Your task to perform on an android device: open app "Facebook Lite" (install if not already installed), go to login, and select forgot password Image 0: 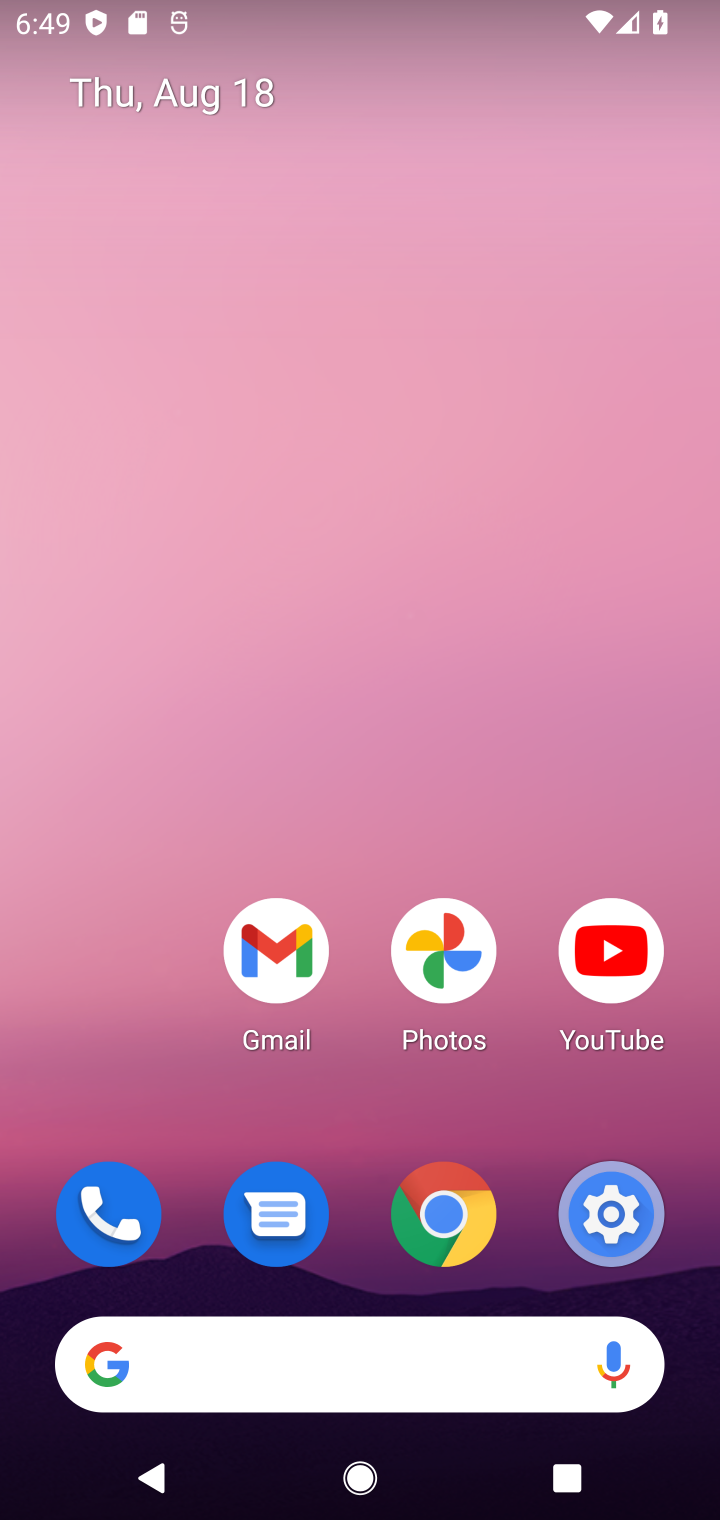
Step 0: drag from (361, 1097) to (398, 36)
Your task to perform on an android device: open app "Facebook Lite" (install if not already installed), go to login, and select forgot password Image 1: 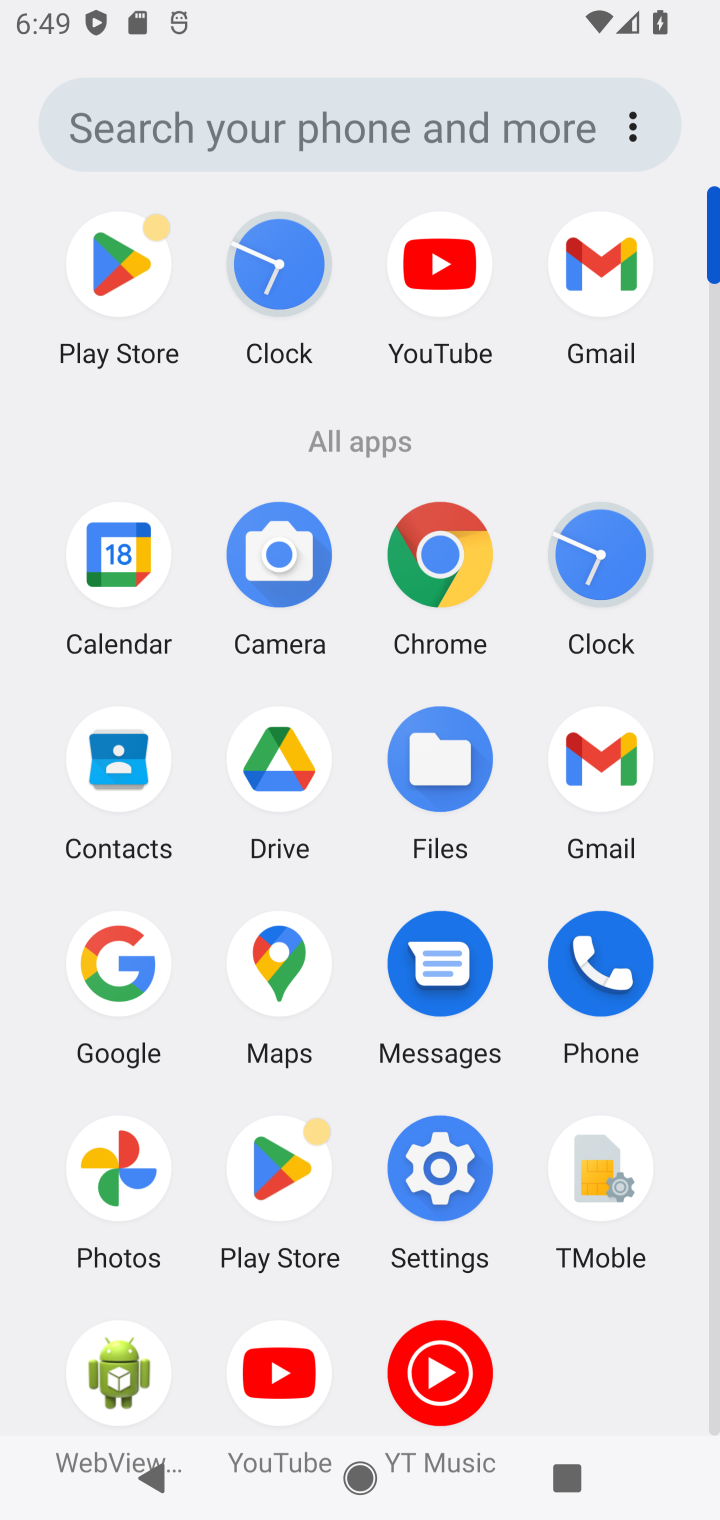
Step 1: click (280, 1177)
Your task to perform on an android device: open app "Facebook Lite" (install if not already installed), go to login, and select forgot password Image 2: 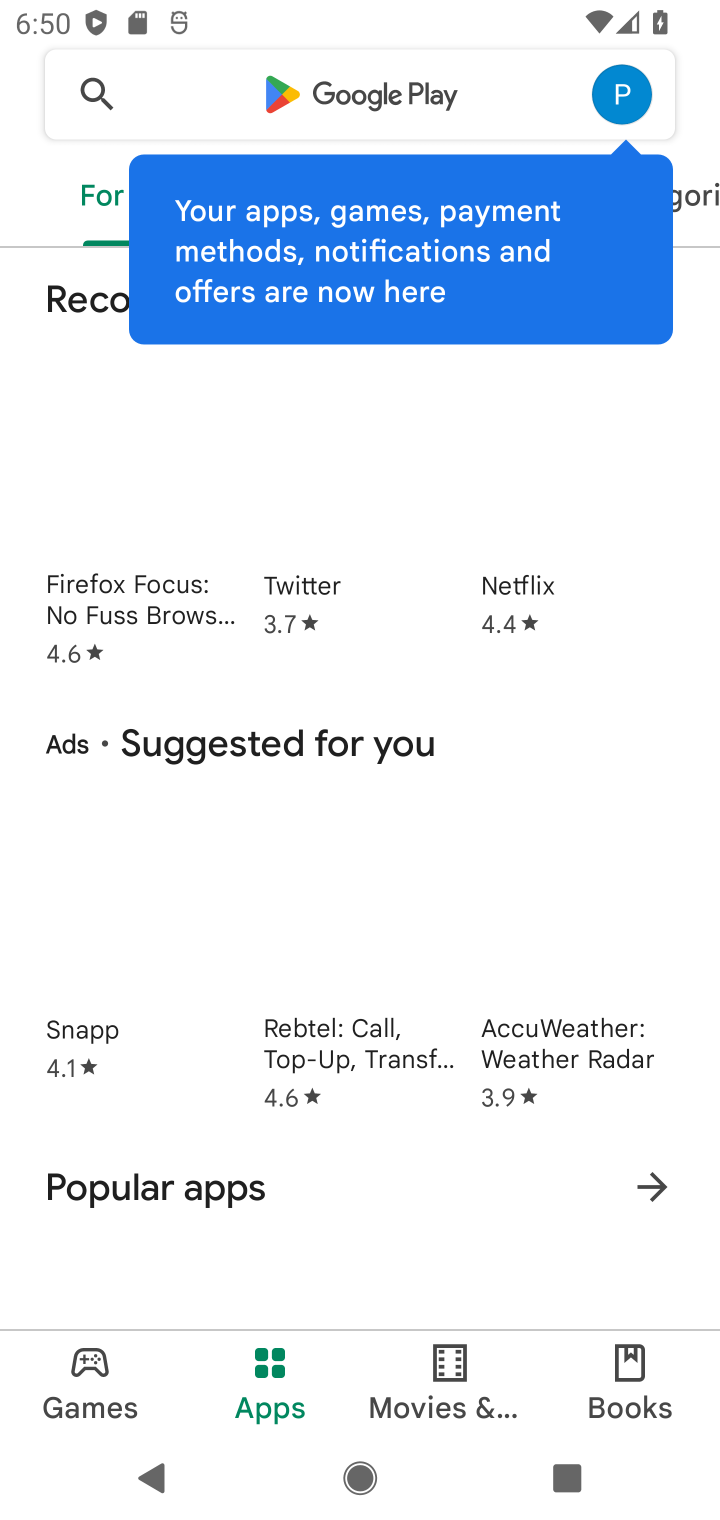
Step 2: click (385, 84)
Your task to perform on an android device: open app "Facebook Lite" (install if not already installed), go to login, and select forgot password Image 3: 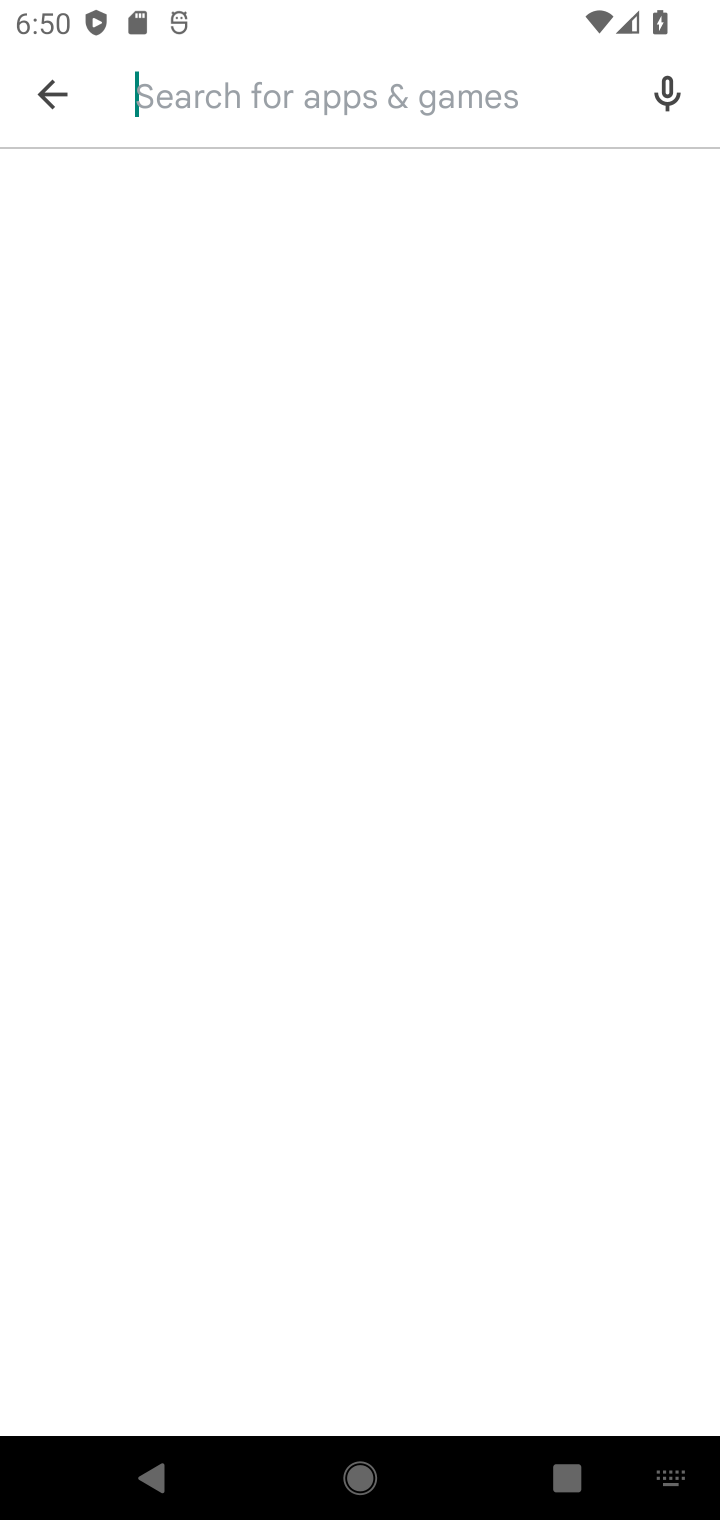
Step 3: type "facebook lite"
Your task to perform on an android device: open app "Facebook Lite" (install if not already installed), go to login, and select forgot password Image 4: 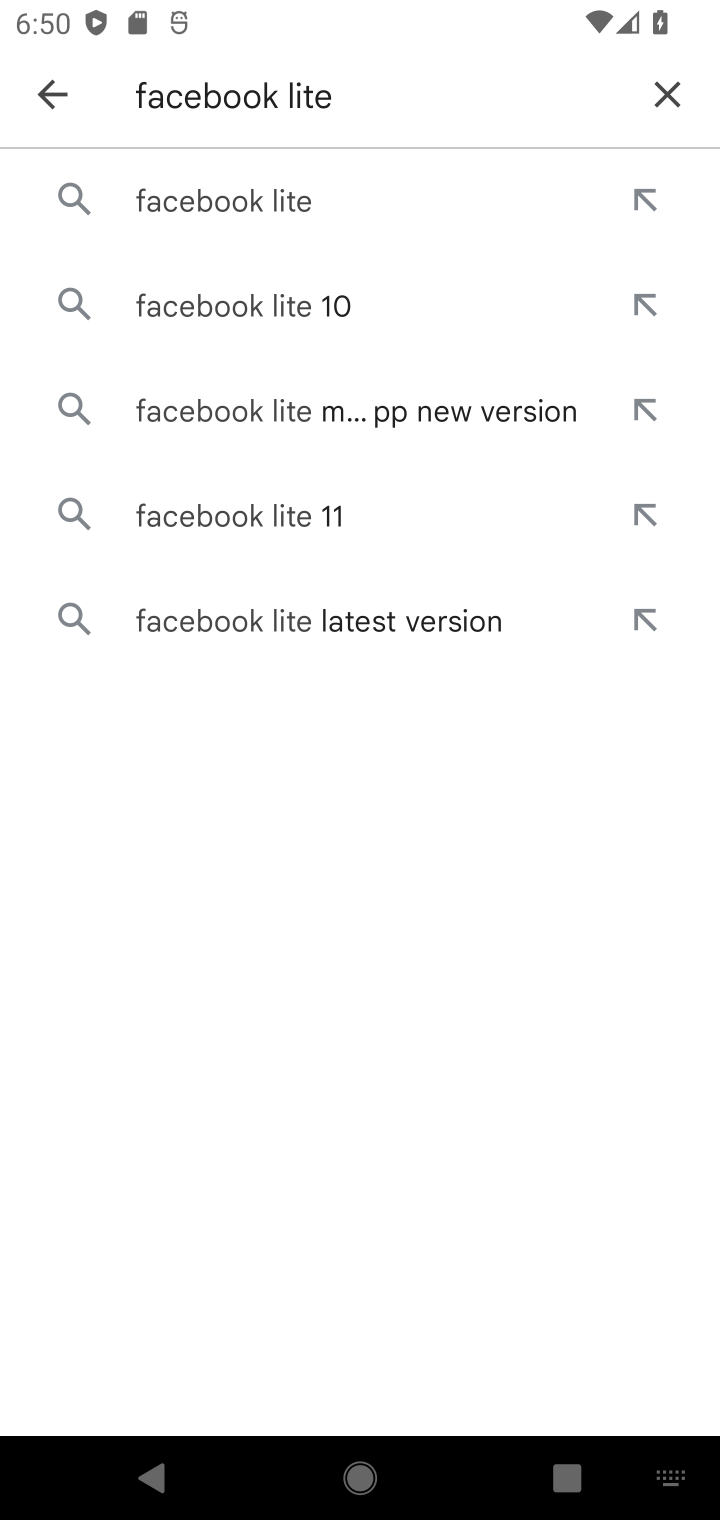
Step 4: click (312, 208)
Your task to perform on an android device: open app "Facebook Lite" (install if not already installed), go to login, and select forgot password Image 5: 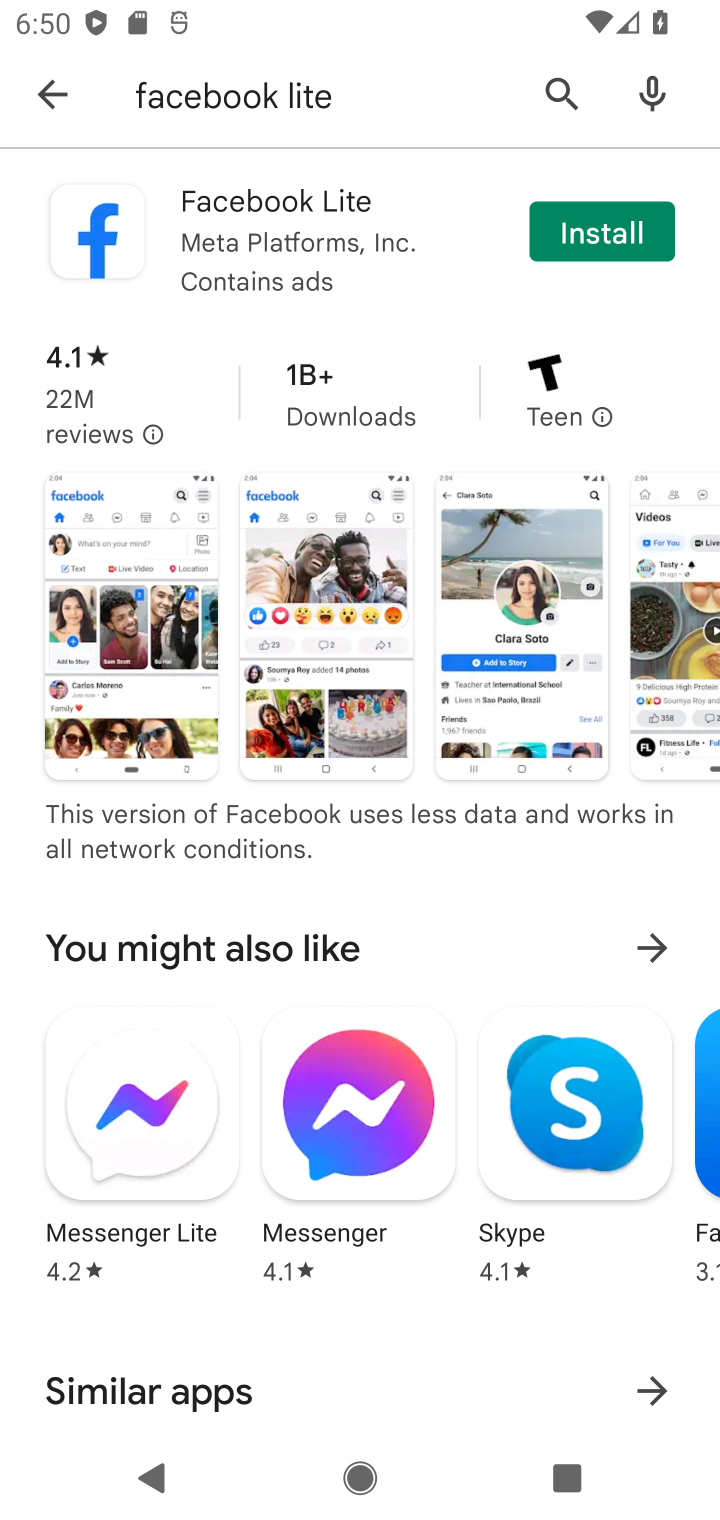
Step 5: click (578, 223)
Your task to perform on an android device: open app "Facebook Lite" (install if not already installed), go to login, and select forgot password Image 6: 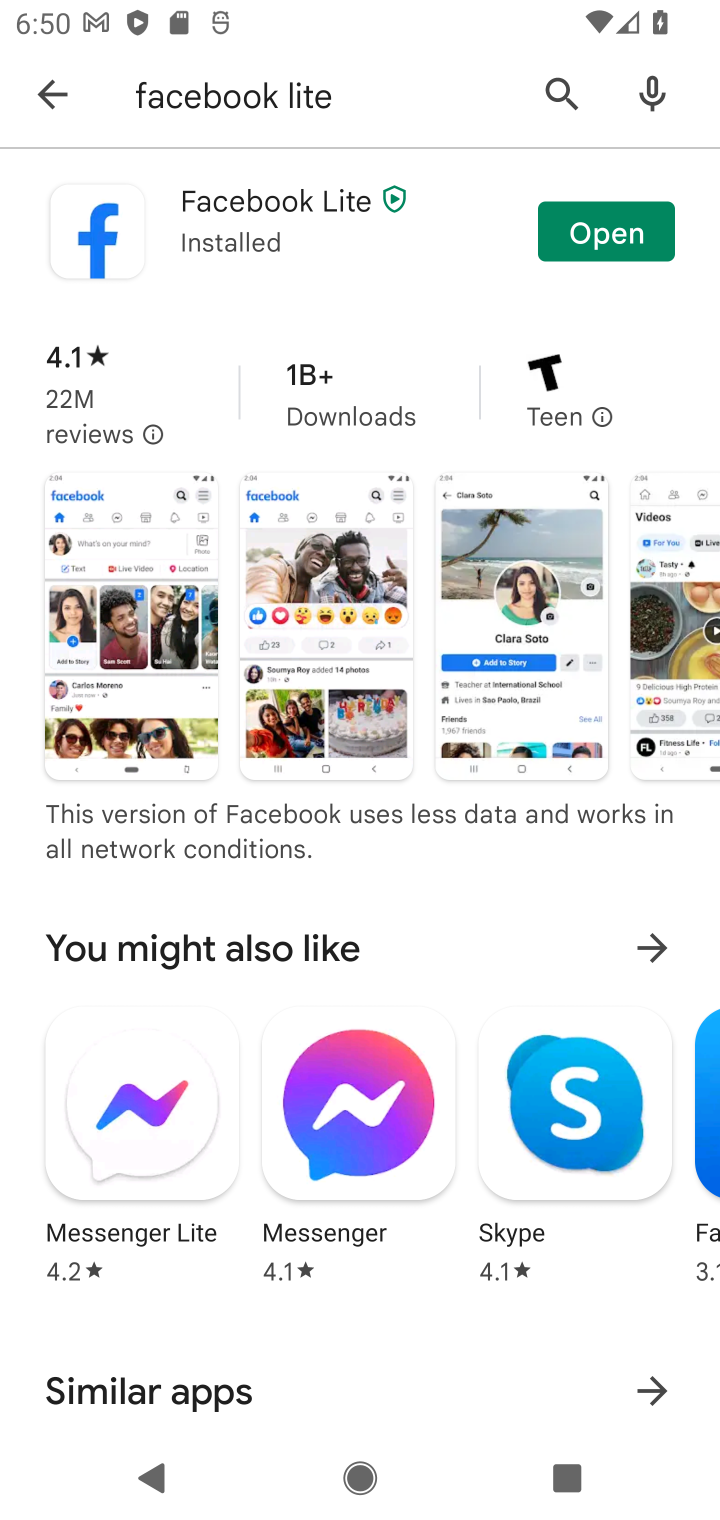
Step 6: click (614, 232)
Your task to perform on an android device: open app "Facebook Lite" (install if not already installed), go to login, and select forgot password Image 7: 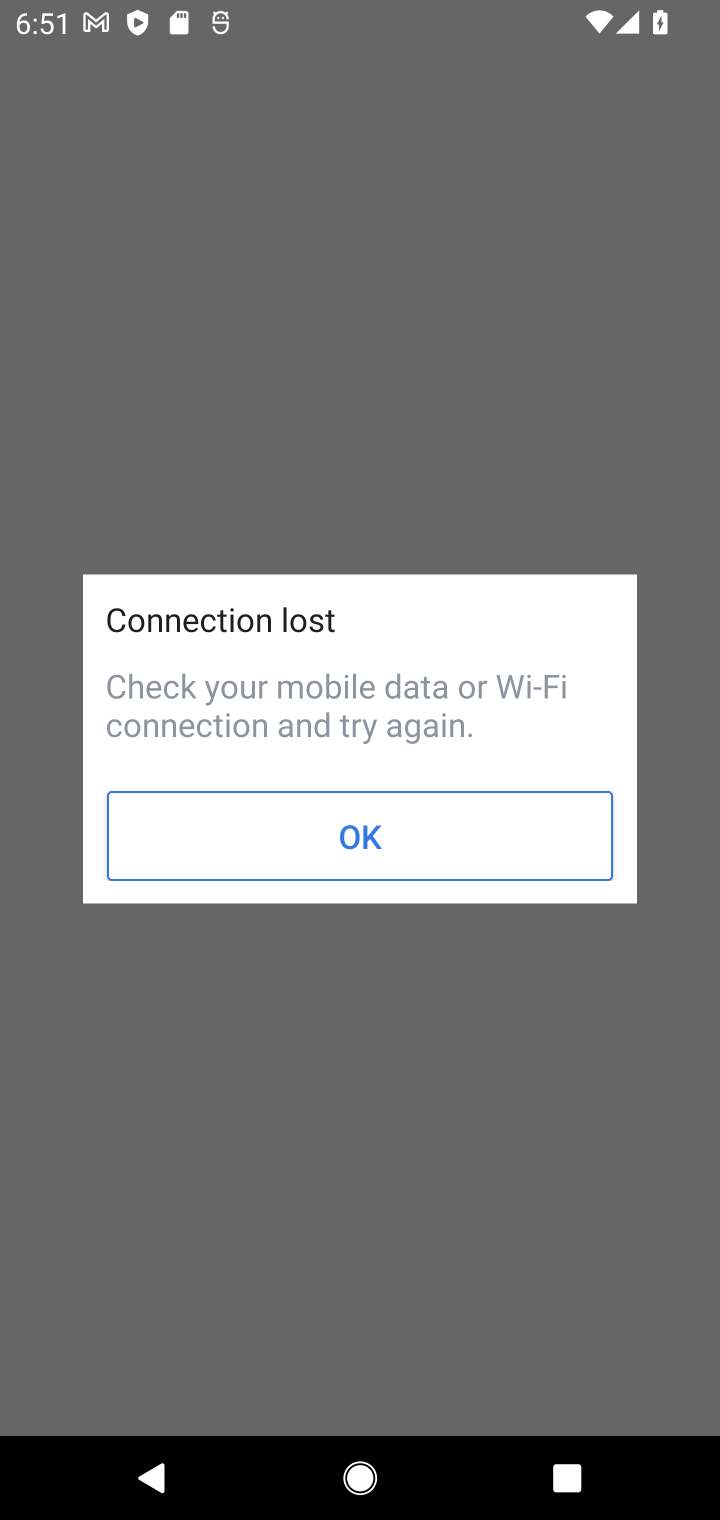
Step 7: click (236, 808)
Your task to perform on an android device: open app "Facebook Lite" (install if not already installed), go to login, and select forgot password Image 8: 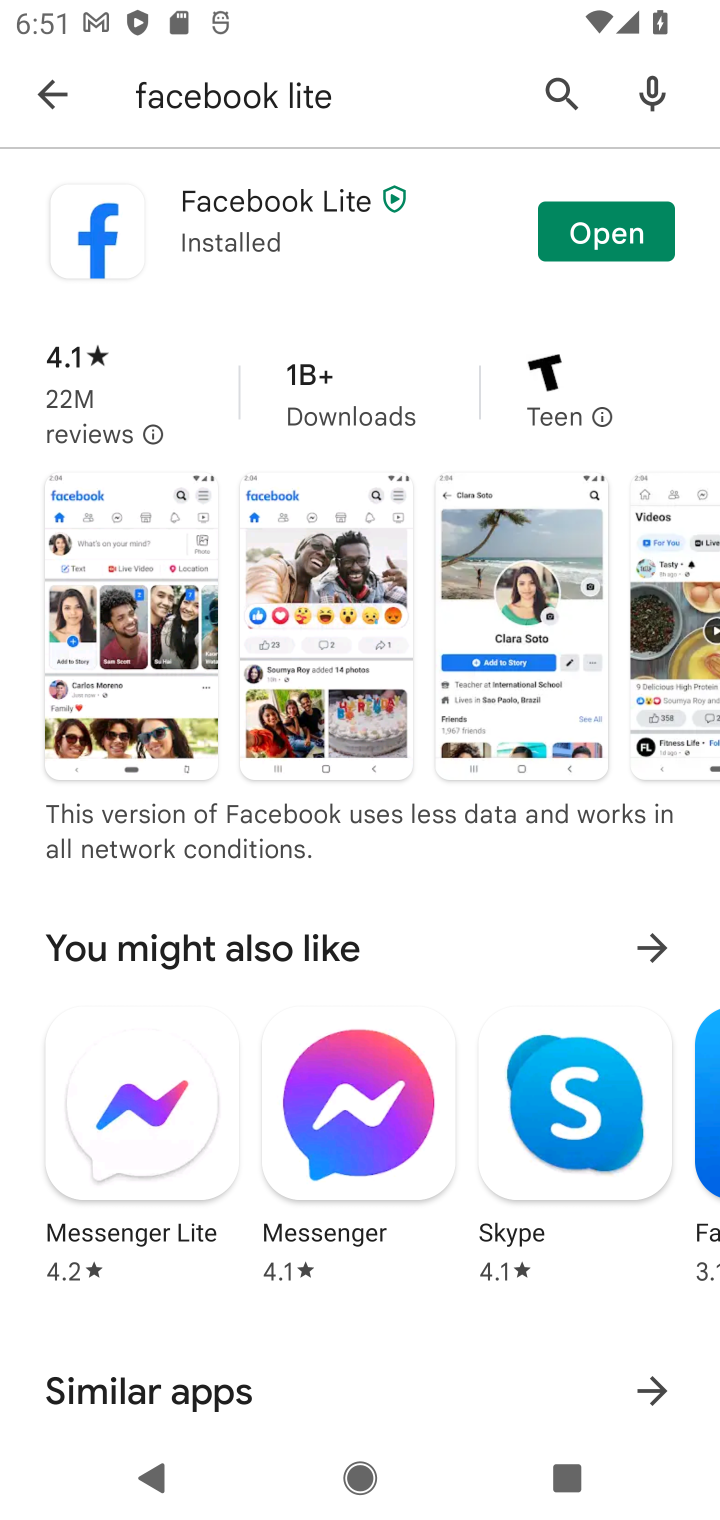
Step 8: click (562, 237)
Your task to perform on an android device: open app "Facebook Lite" (install if not already installed), go to login, and select forgot password Image 9: 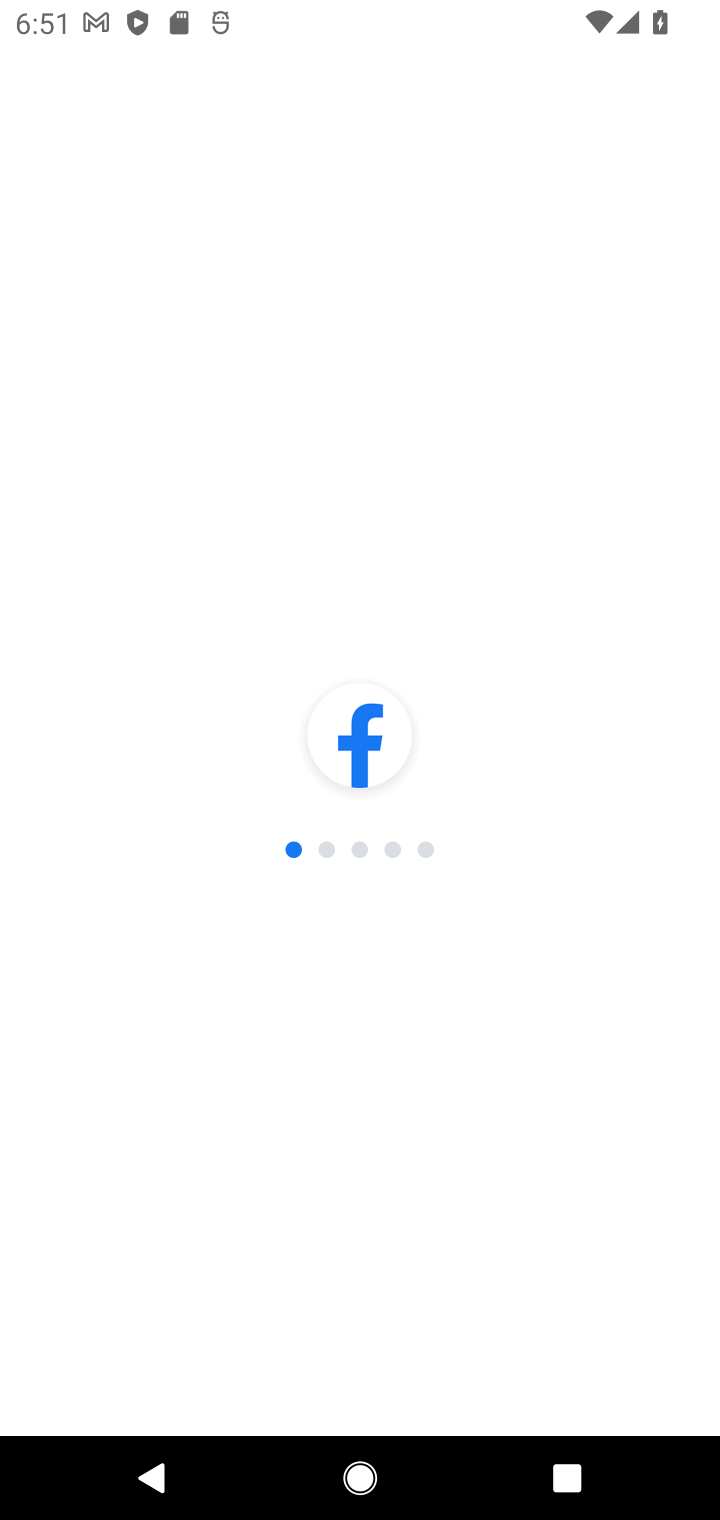
Step 9: task complete